Your task to perform on an android device: see tabs open on other devices in the chrome app Image 0: 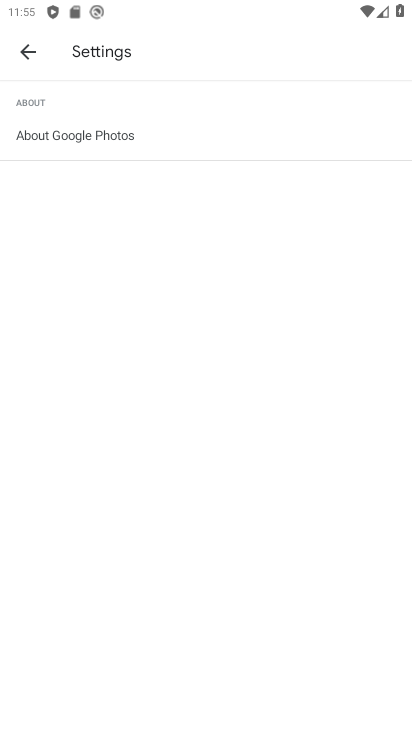
Step 0: press home button
Your task to perform on an android device: see tabs open on other devices in the chrome app Image 1: 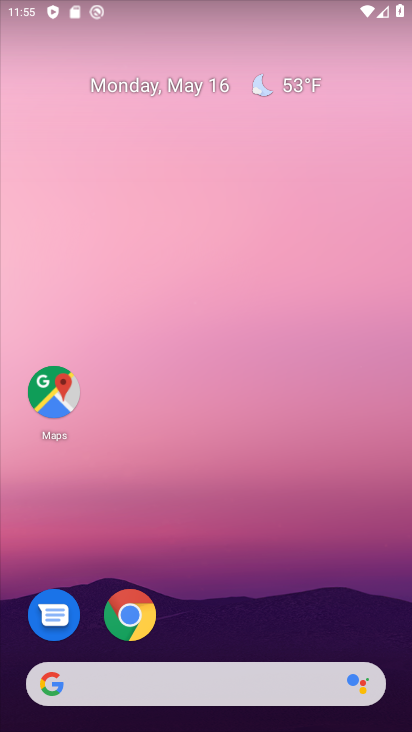
Step 1: click (130, 601)
Your task to perform on an android device: see tabs open on other devices in the chrome app Image 2: 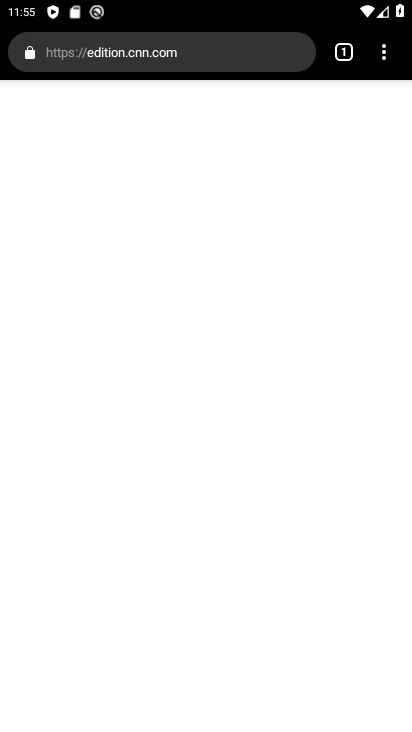
Step 2: click (383, 64)
Your task to perform on an android device: see tabs open on other devices in the chrome app Image 3: 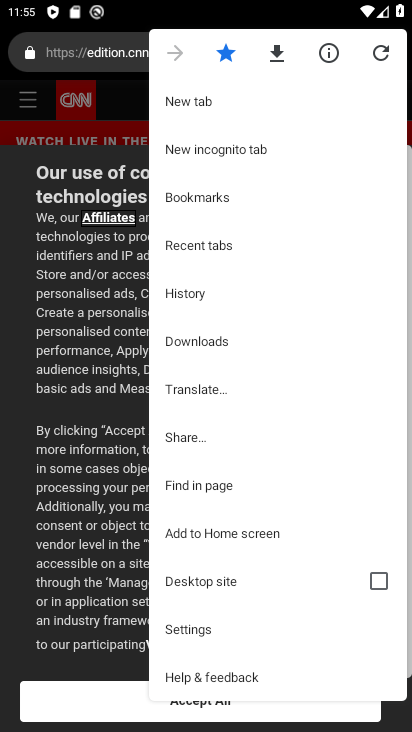
Step 3: click (268, 238)
Your task to perform on an android device: see tabs open on other devices in the chrome app Image 4: 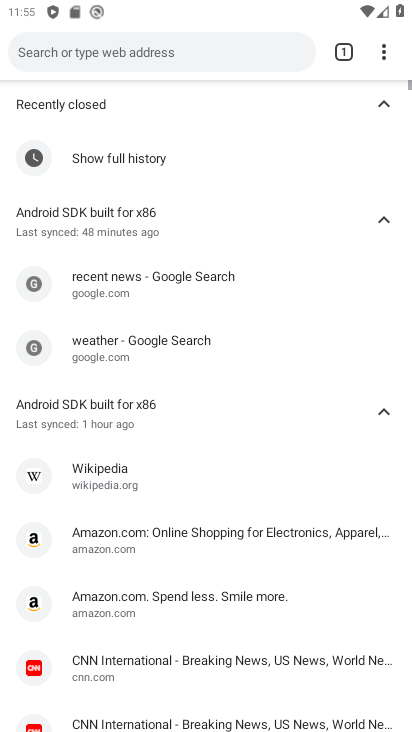
Step 4: task complete